Your task to perform on an android device: Set the phone to "Do not disturb". Image 0: 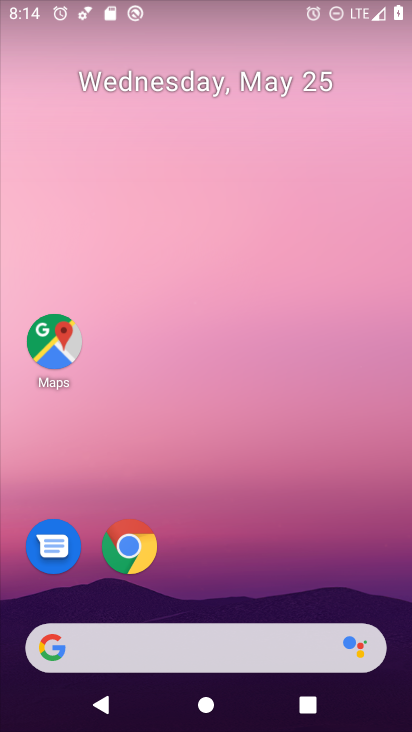
Step 0: drag from (386, 582) to (382, 227)
Your task to perform on an android device: Set the phone to "Do not disturb". Image 1: 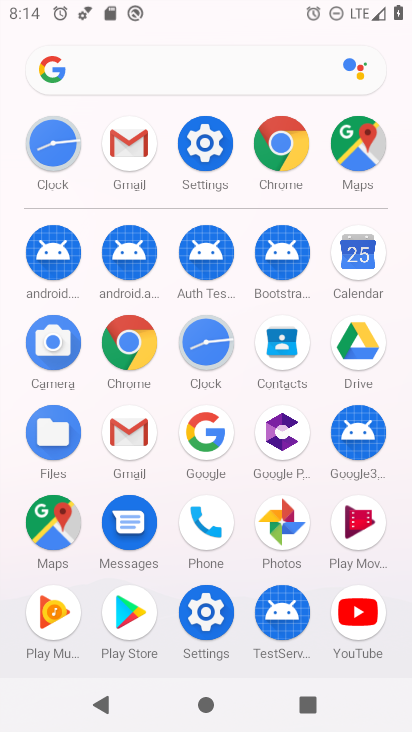
Step 1: click (211, 606)
Your task to perform on an android device: Set the phone to "Do not disturb". Image 2: 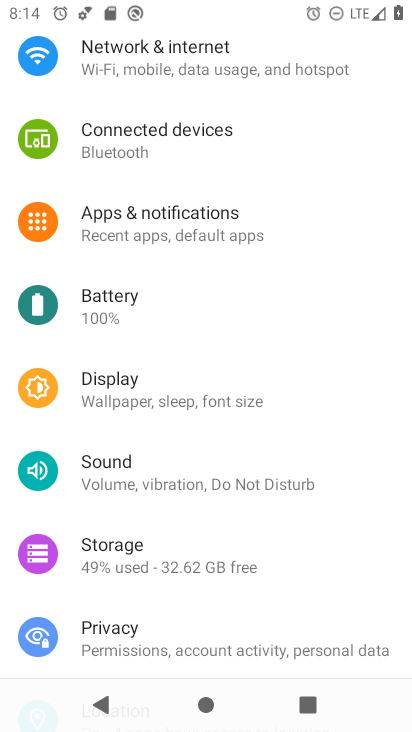
Step 2: drag from (337, 187) to (343, 324)
Your task to perform on an android device: Set the phone to "Do not disturb". Image 3: 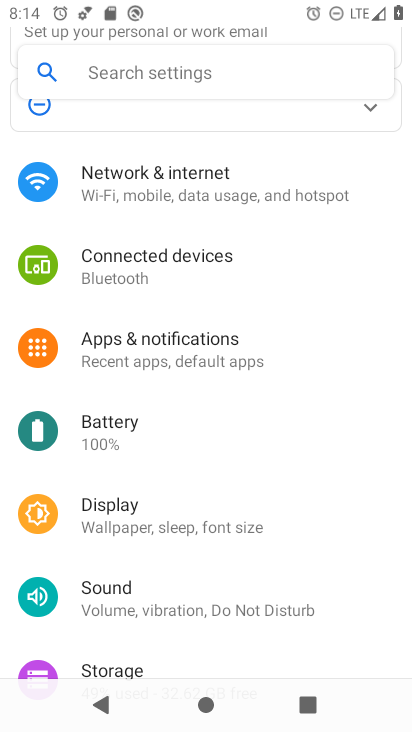
Step 3: drag from (360, 177) to (350, 322)
Your task to perform on an android device: Set the phone to "Do not disturb". Image 4: 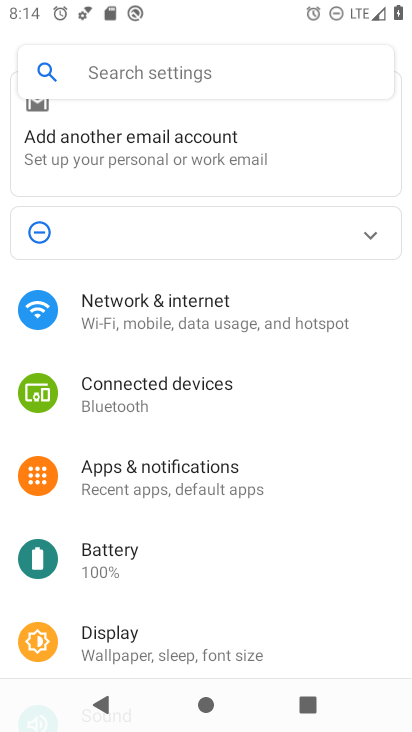
Step 4: drag from (335, 148) to (341, 380)
Your task to perform on an android device: Set the phone to "Do not disturb". Image 5: 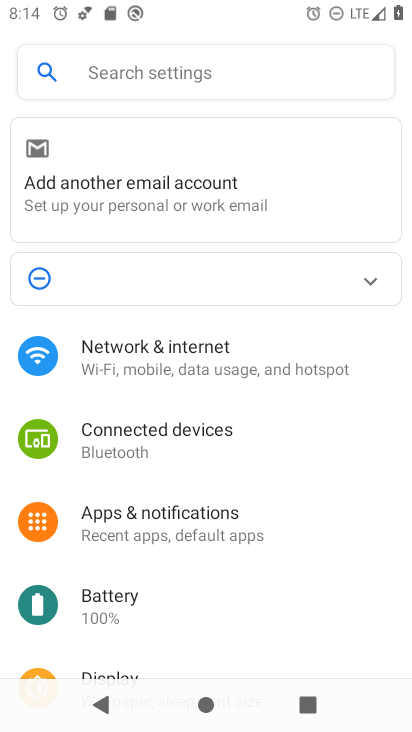
Step 5: drag from (328, 511) to (337, 401)
Your task to perform on an android device: Set the phone to "Do not disturb". Image 6: 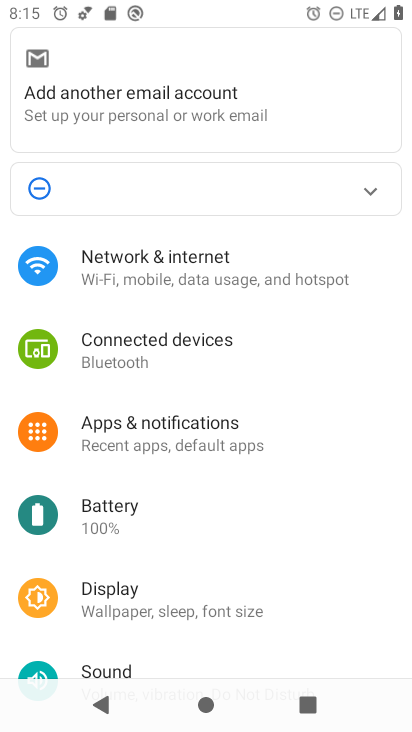
Step 6: drag from (335, 511) to (342, 374)
Your task to perform on an android device: Set the phone to "Do not disturb". Image 7: 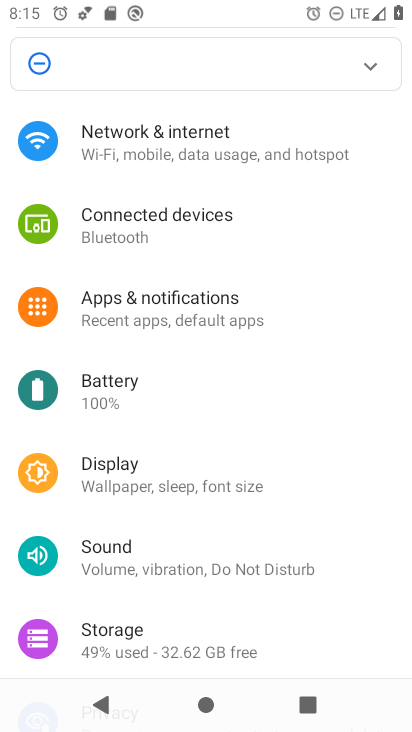
Step 7: drag from (342, 500) to (345, 413)
Your task to perform on an android device: Set the phone to "Do not disturb". Image 8: 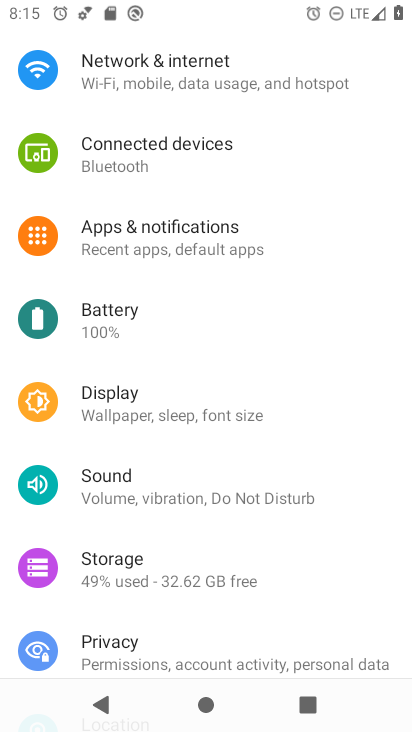
Step 8: drag from (344, 483) to (347, 374)
Your task to perform on an android device: Set the phone to "Do not disturb". Image 9: 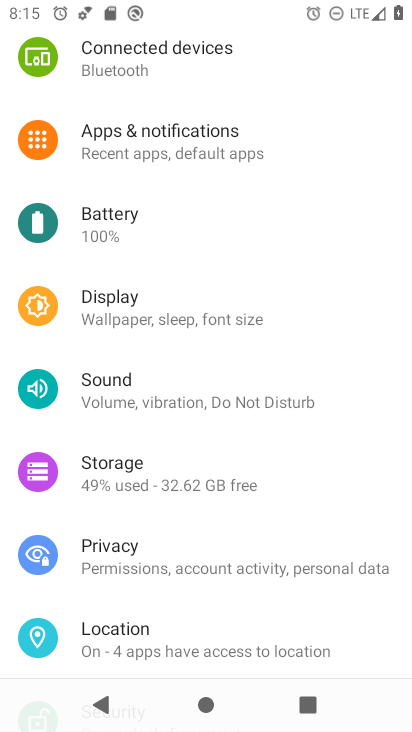
Step 9: drag from (351, 480) to (351, 396)
Your task to perform on an android device: Set the phone to "Do not disturb". Image 10: 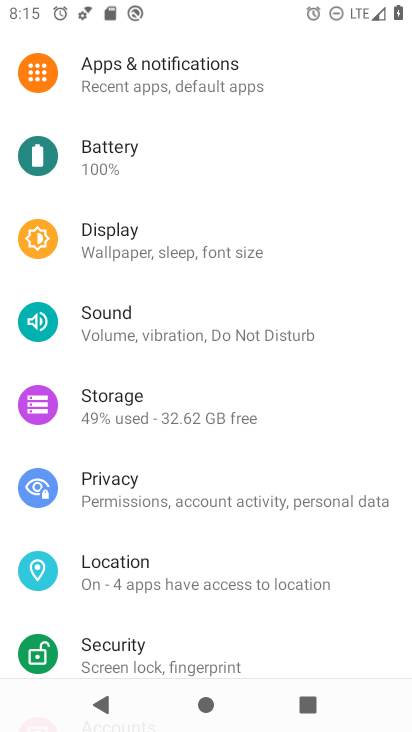
Step 10: click (313, 345)
Your task to perform on an android device: Set the phone to "Do not disturb". Image 11: 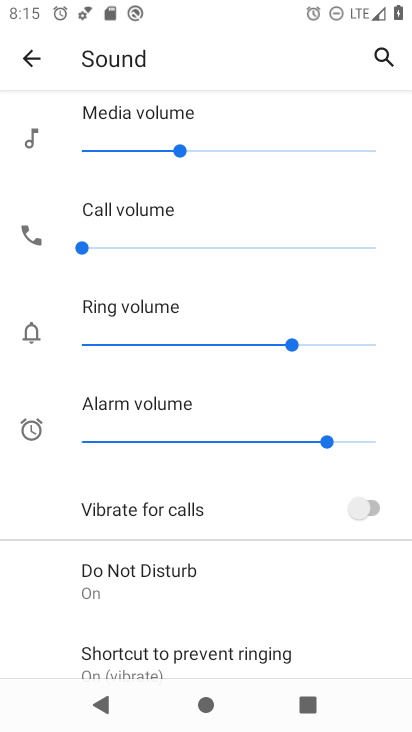
Step 11: task complete